Your task to perform on an android device: star an email in the gmail app Image 0: 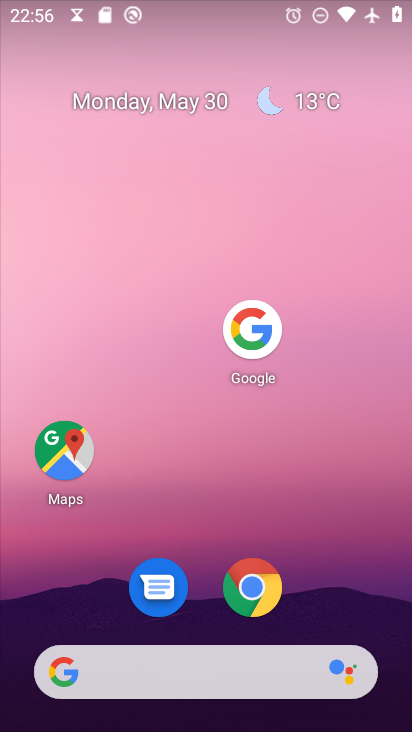
Step 0: press home button
Your task to perform on an android device: star an email in the gmail app Image 1: 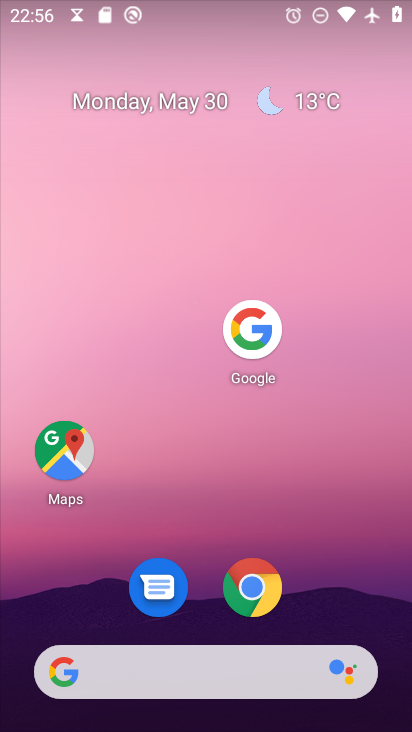
Step 1: drag from (180, 671) to (340, 65)
Your task to perform on an android device: star an email in the gmail app Image 2: 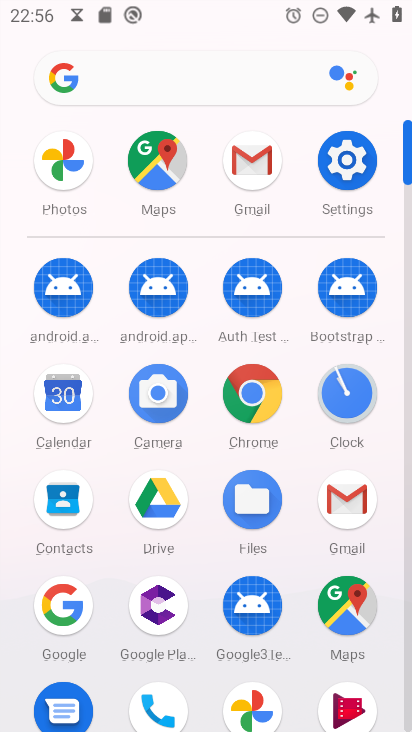
Step 2: click (249, 170)
Your task to perform on an android device: star an email in the gmail app Image 3: 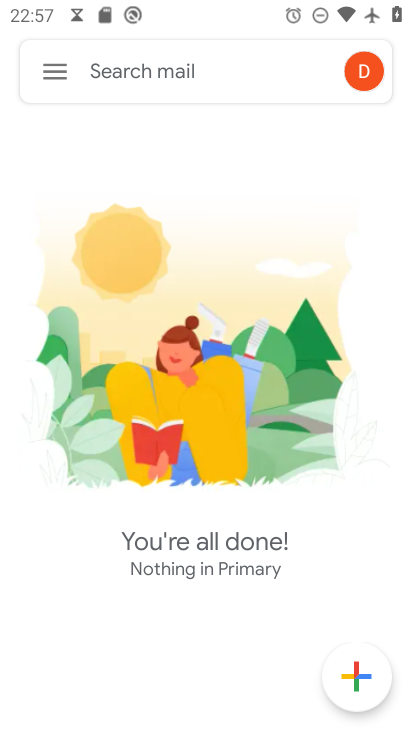
Step 3: task complete